Your task to perform on an android device: toggle show notifications on the lock screen Image 0: 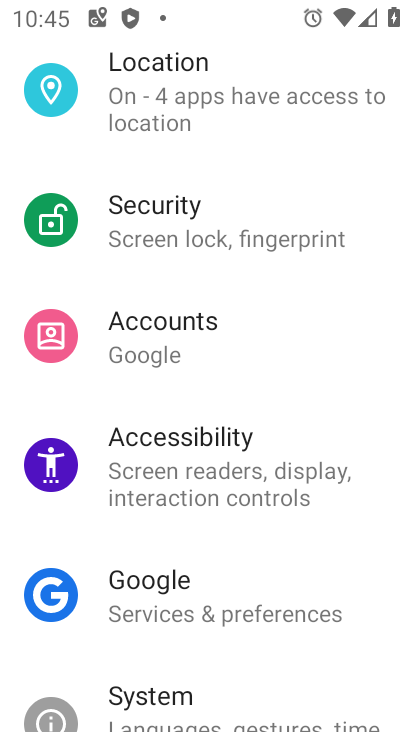
Step 0: drag from (275, 96) to (290, 652)
Your task to perform on an android device: toggle show notifications on the lock screen Image 1: 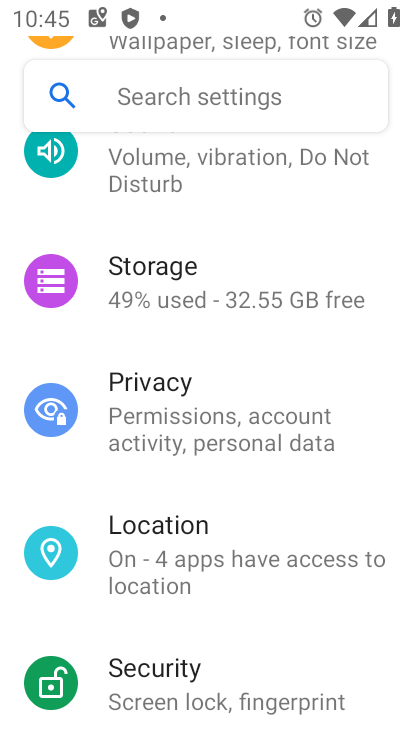
Step 1: drag from (269, 183) to (281, 473)
Your task to perform on an android device: toggle show notifications on the lock screen Image 2: 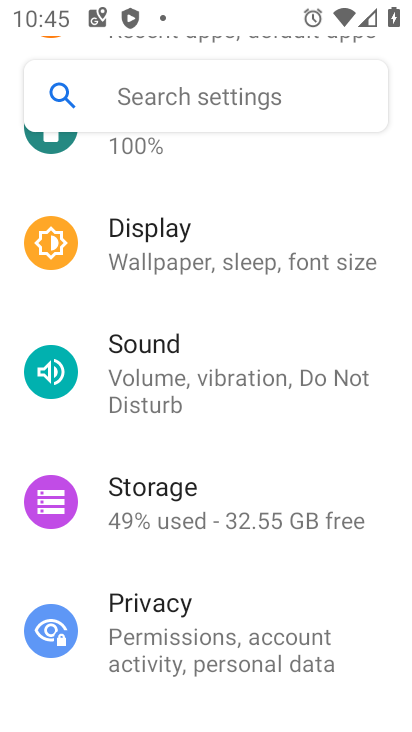
Step 2: drag from (258, 178) to (263, 538)
Your task to perform on an android device: toggle show notifications on the lock screen Image 3: 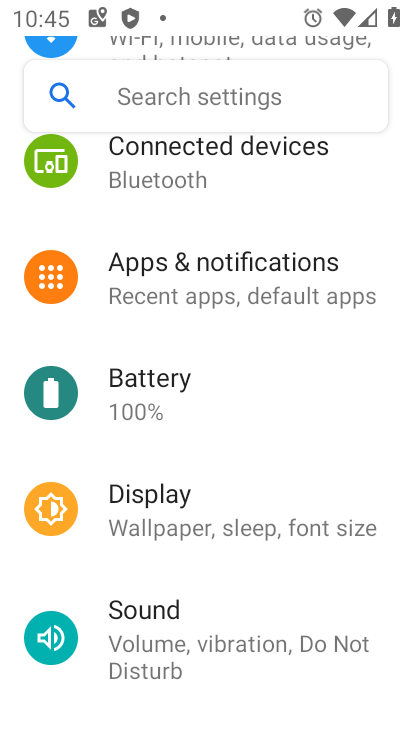
Step 3: click (263, 266)
Your task to perform on an android device: toggle show notifications on the lock screen Image 4: 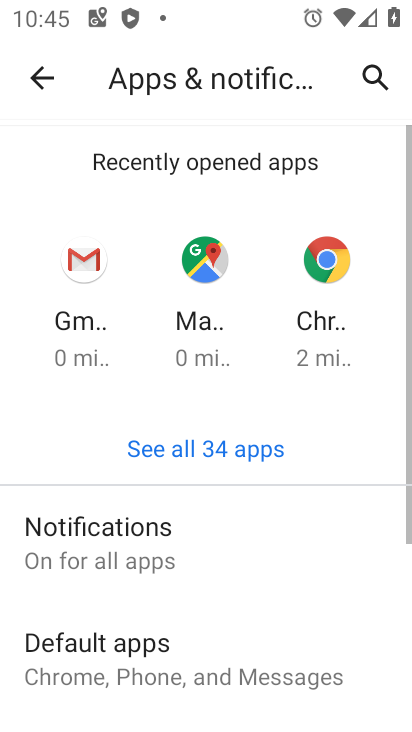
Step 4: click (126, 523)
Your task to perform on an android device: toggle show notifications on the lock screen Image 5: 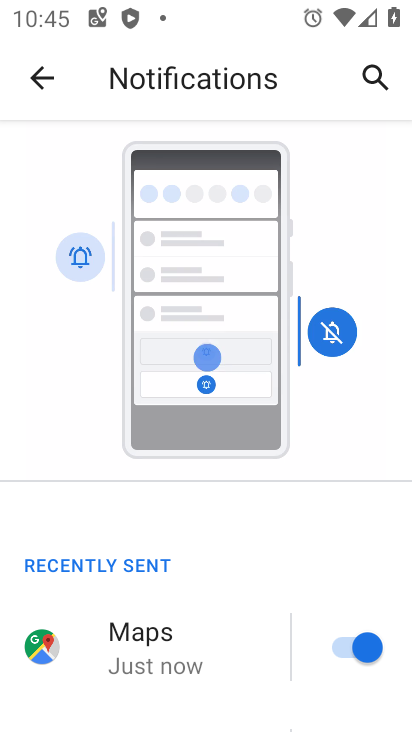
Step 5: drag from (214, 672) to (201, 382)
Your task to perform on an android device: toggle show notifications on the lock screen Image 6: 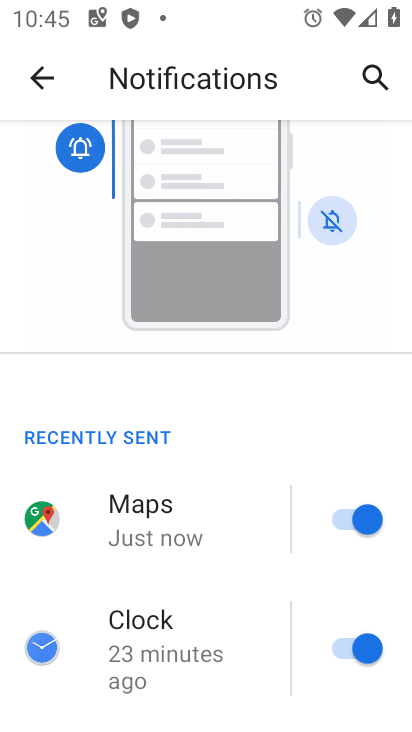
Step 6: drag from (235, 701) to (236, 439)
Your task to perform on an android device: toggle show notifications on the lock screen Image 7: 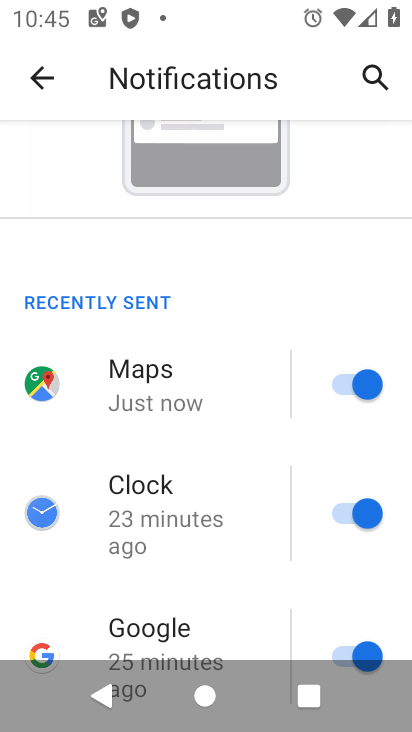
Step 7: drag from (241, 642) to (211, 321)
Your task to perform on an android device: toggle show notifications on the lock screen Image 8: 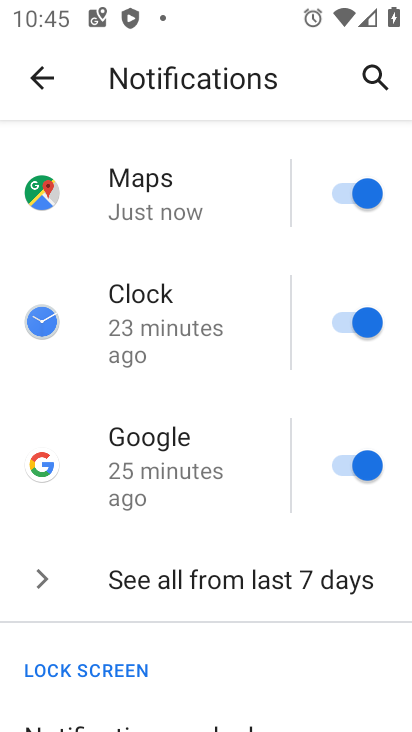
Step 8: drag from (242, 528) to (228, 292)
Your task to perform on an android device: toggle show notifications on the lock screen Image 9: 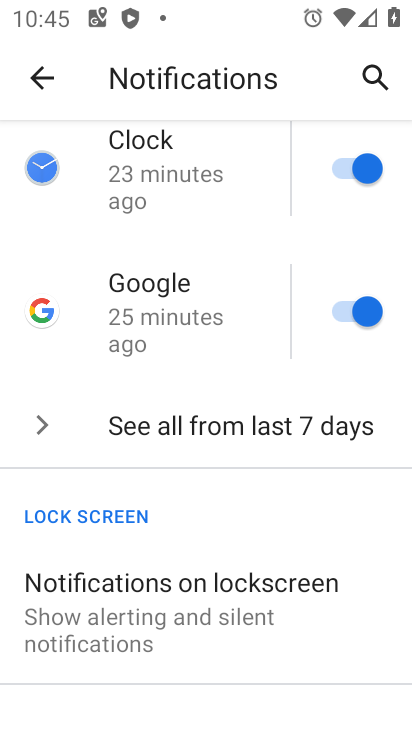
Step 9: click (160, 593)
Your task to perform on an android device: toggle show notifications on the lock screen Image 10: 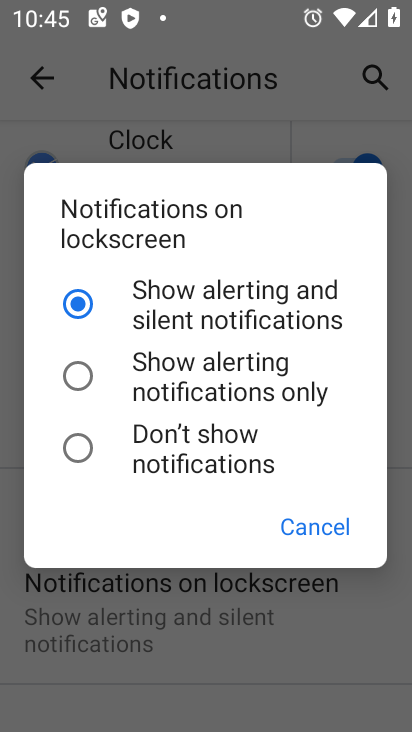
Step 10: click (80, 377)
Your task to perform on an android device: toggle show notifications on the lock screen Image 11: 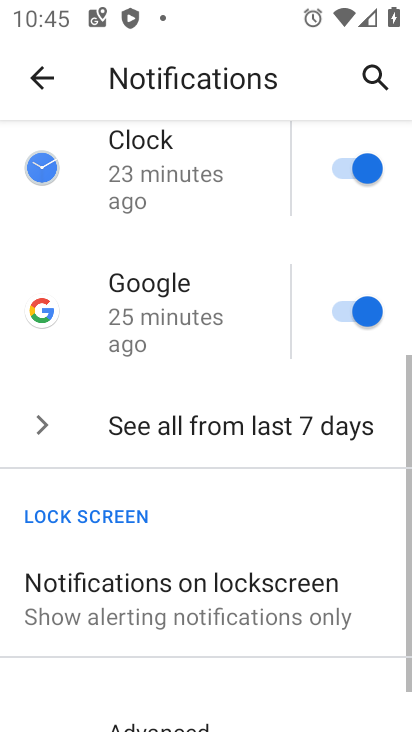
Step 11: task complete